Your task to perform on an android device: Search for pizza restaurants on Maps Image 0: 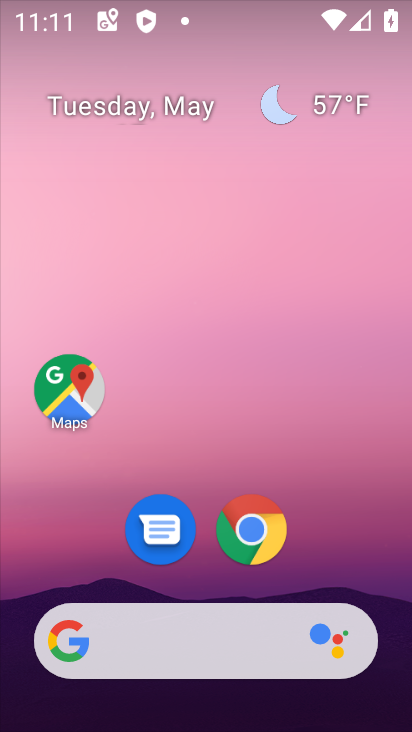
Step 0: click (85, 372)
Your task to perform on an android device: Search for pizza restaurants on Maps Image 1: 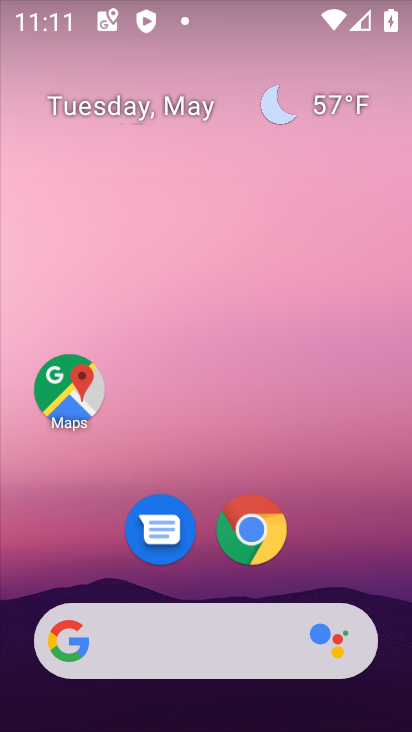
Step 1: click (85, 372)
Your task to perform on an android device: Search for pizza restaurants on Maps Image 2: 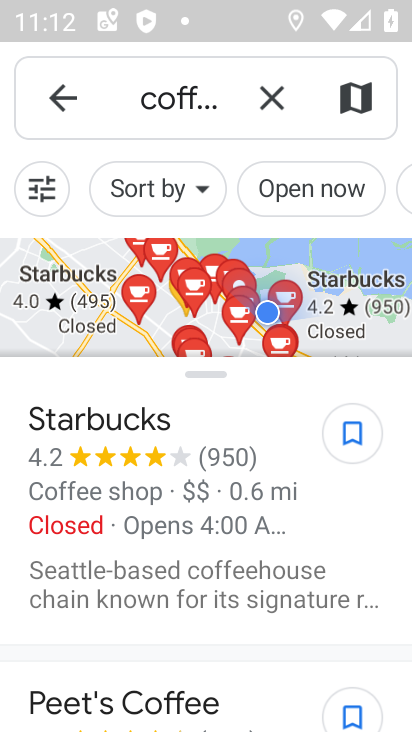
Step 2: click (270, 85)
Your task to perform on an android device: Search for pizza restaurants on Maps Image 3: 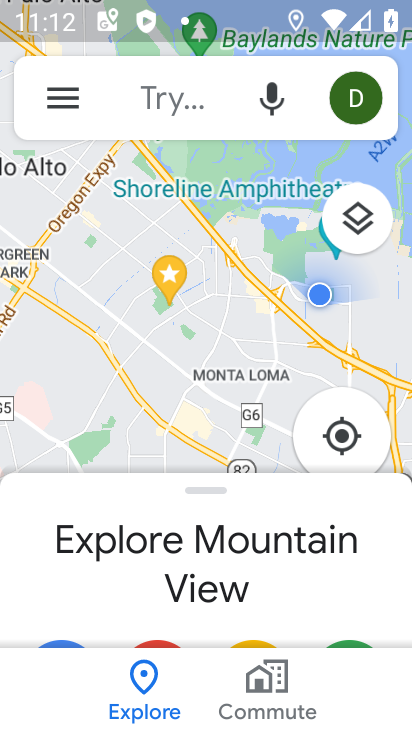
Step 3: click (223, 97)
Your task to perform on an android device: Search for pizza restaurants on Maps Image 4: 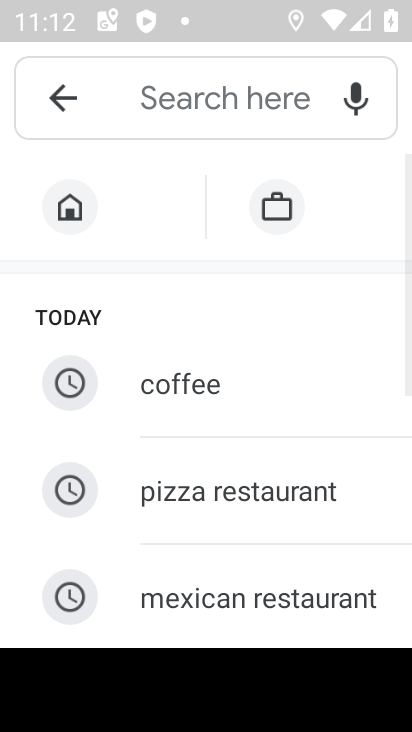
Step 4: click (301, 474)
Your task to perform on an android device: Search for pizza restaurants on Maps Image 5: 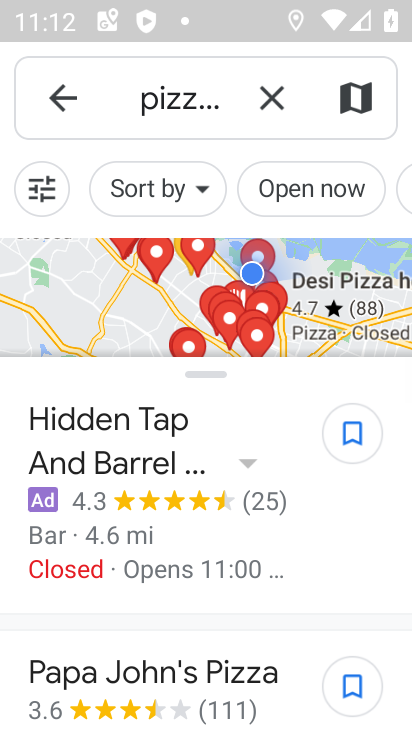
Step 5: task complete